Your task to perform on an android device: turn off smart reply in the gmail app Image 0: 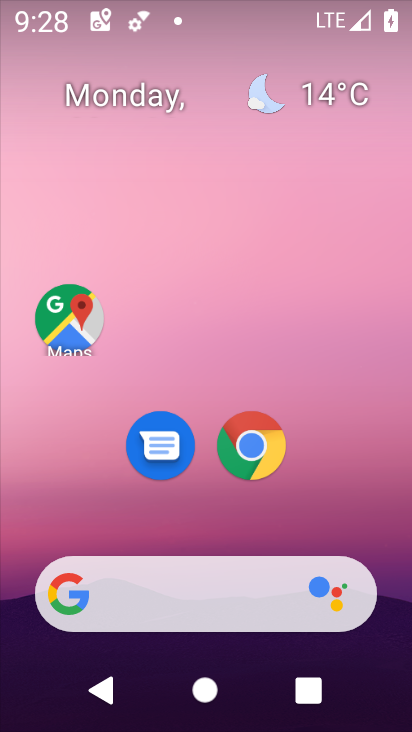
Step 0: drag from (216, 519) to (261, 44)
Your task to perform on an android device: turn off smart reply in the gmail app Image 1: 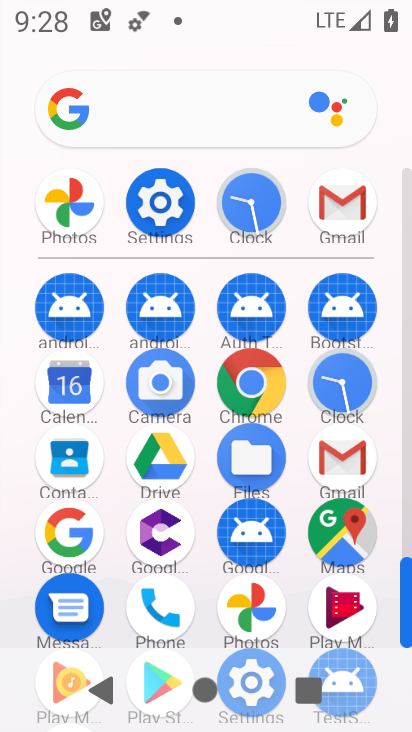
Step 1: click (341, 191)
Your task to perform on an android device: turn off smart reply in the gmail app Image 2: 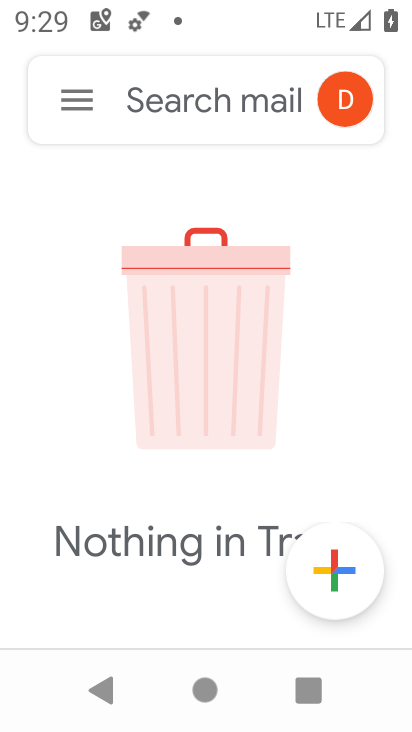
Step 2: click (74, 98)
Your task to perform on an android device: turn off smart reply in the gmail app Image 3: 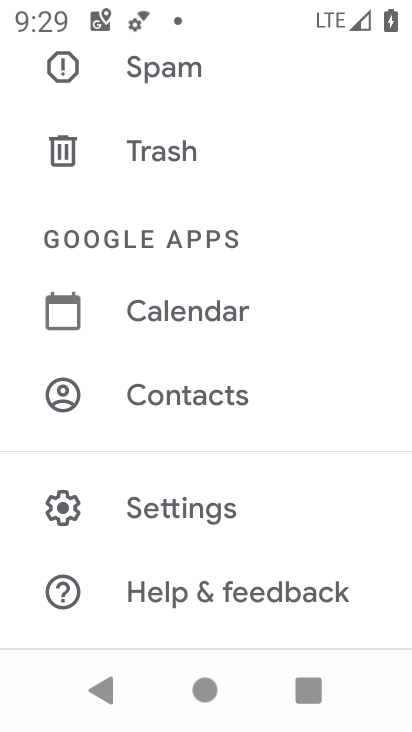
Step 3: click (208, 506)
Your task to perform on an android device: turn off smart reply in the gmail app Image 4: 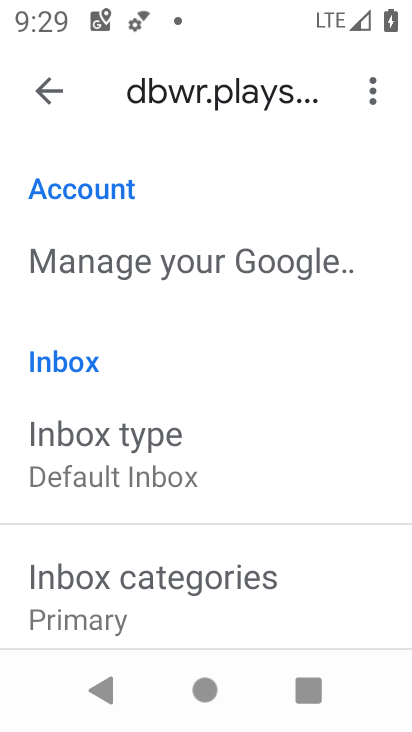
Step 4: drag from (225, 613) to (229, 51)
Your task to perform on an android device: turn off smart reply in the gmail app Image 5: 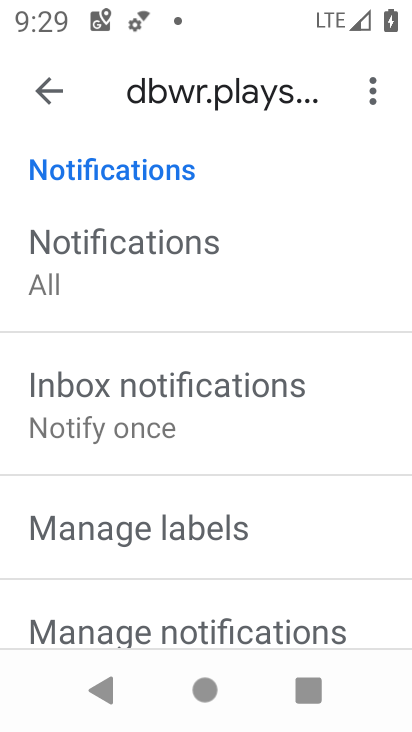
Step 5: drag from (176, 565) to (178, 90)
Your task to perform on an android device: turn off smart reply in the gmail app Image 6: 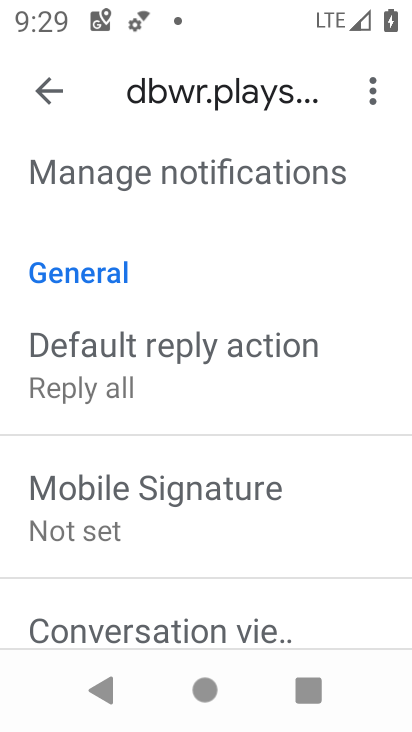
Step 6: drag from (216, 524) to (222, 114)
Your task to perform on an android device: turn off smart reply in the gmail app Image 7: 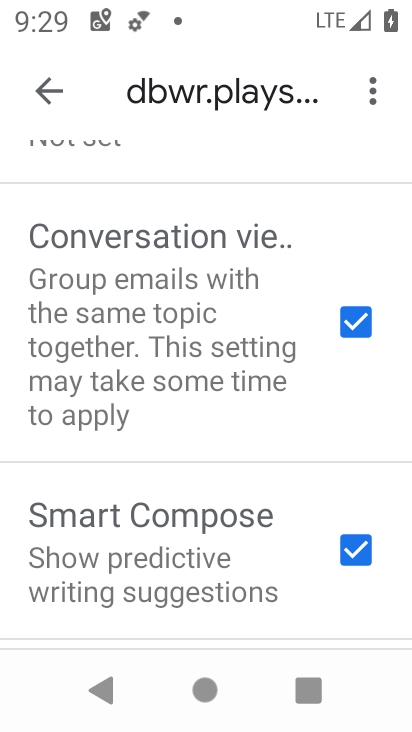
Step 7: drag from (217, 614) to (244, 76)
Your task to perform on an android device: turn off smart reply in the gmail app Image 8: 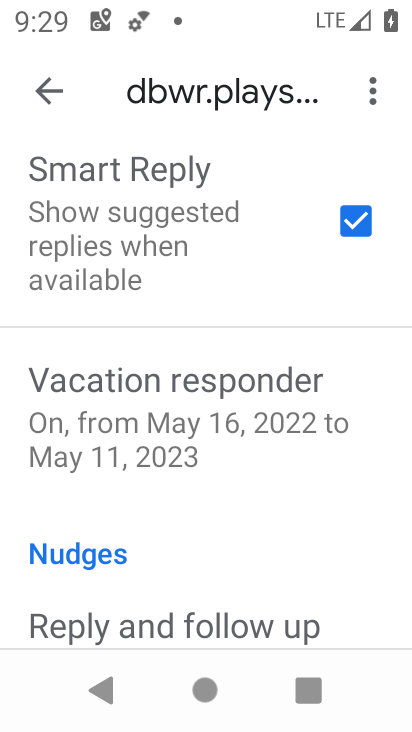
Step 8: click (353, 212)
Your task to perform on an android device: turn off smart reply in the gmail app Image 9: 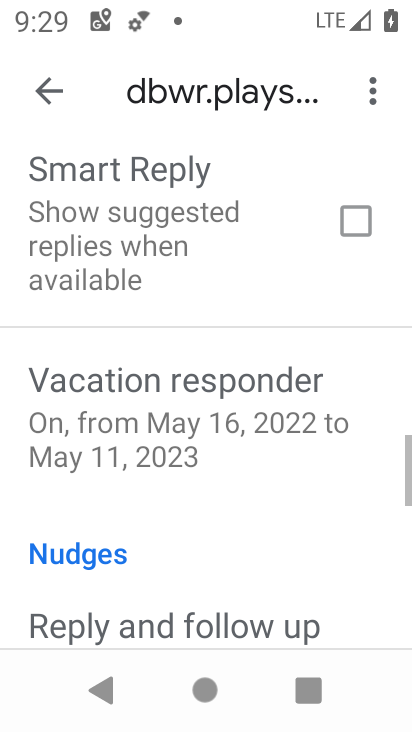
Step 9: task complete